Your task to perform on an android device: Go to accessibility settings Image 0: 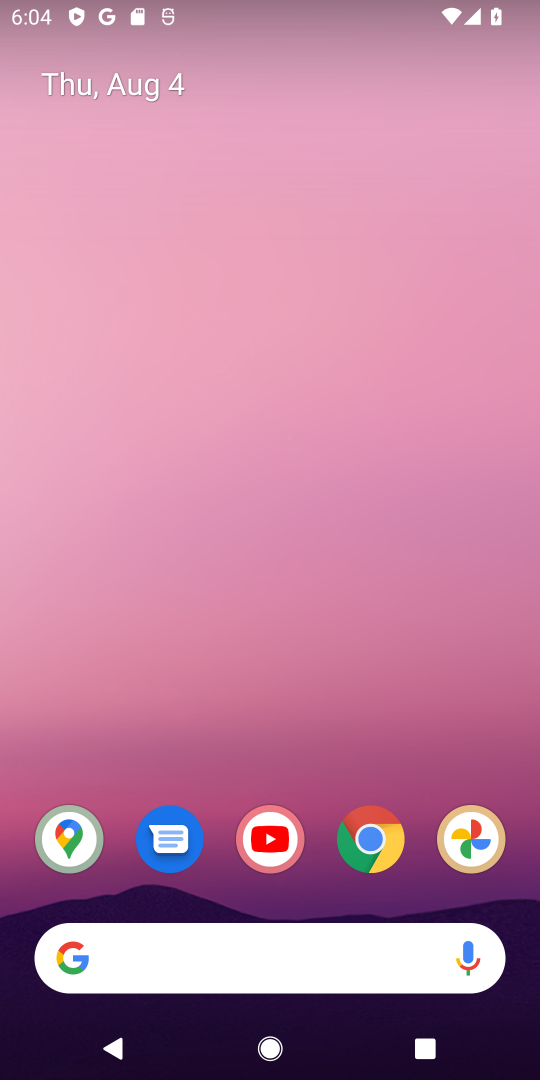
Step 0: drag from (371, 667) to (498, 20)
Your task to perform on an android device: Go to accessibility settings Image 1: 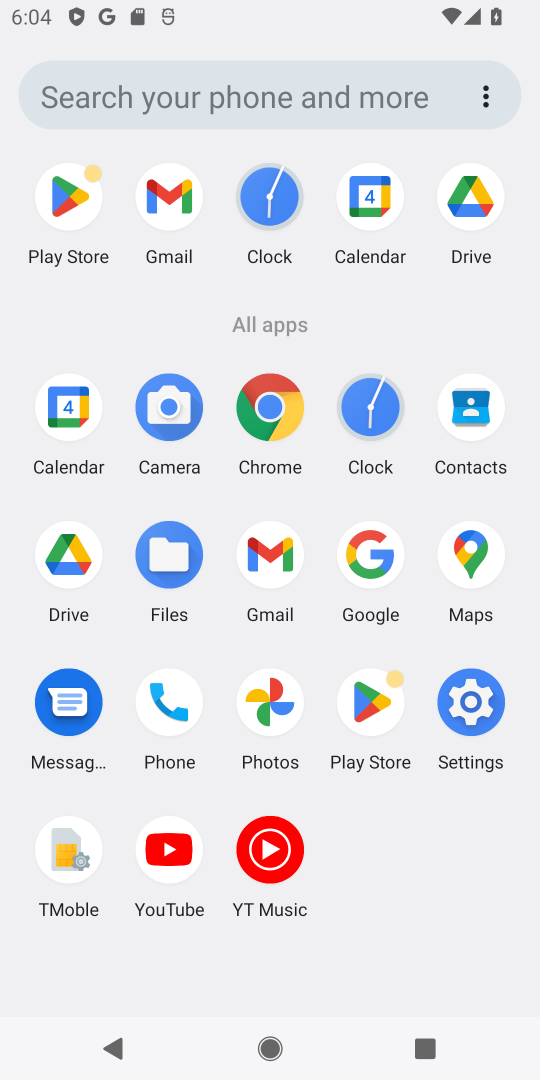
Step 1: click (476, 692)
Your task to perform on an android device: Go to accessibility settings Image 2: 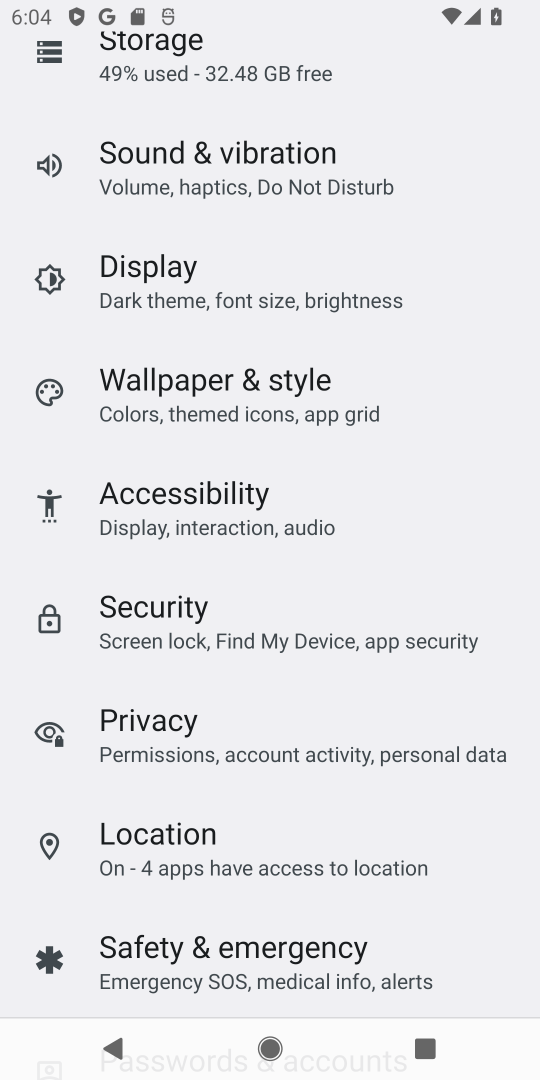
Step 2: click (229, 518)
Your task to perform on an android device: Go to accessibility settings Image 3: 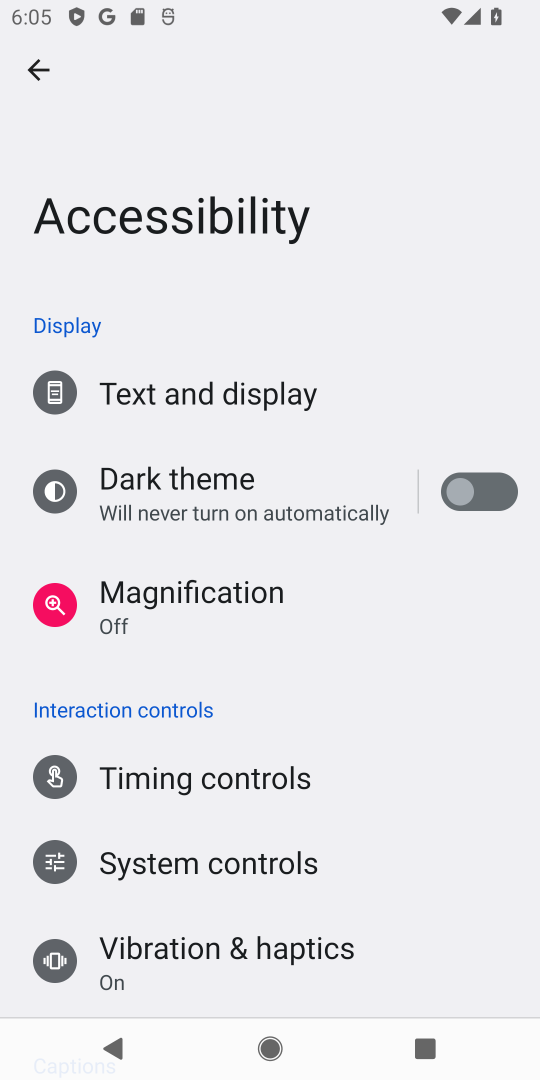
Step 3: task complete